Your task to perform on an android device: When is my next meeting? Image 0: 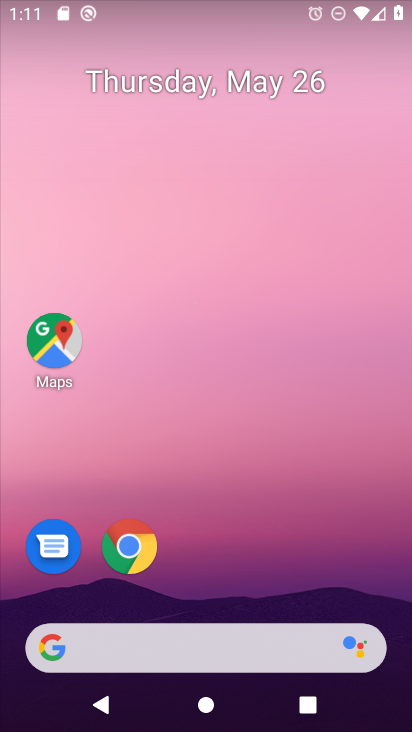
Step 0: drag from (244, 614) to (198, 79)
Your task to perform on an android device: When is my next meeting? Image 1: 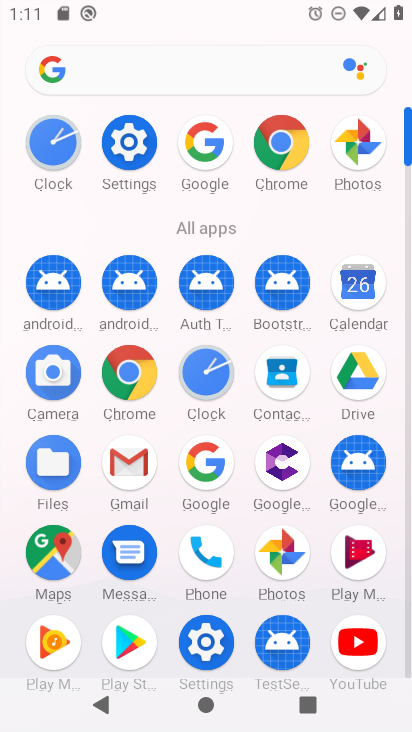
Step 1: click (331, 273)
Your task to perform on an android device: When is my next meeting? Image 2: 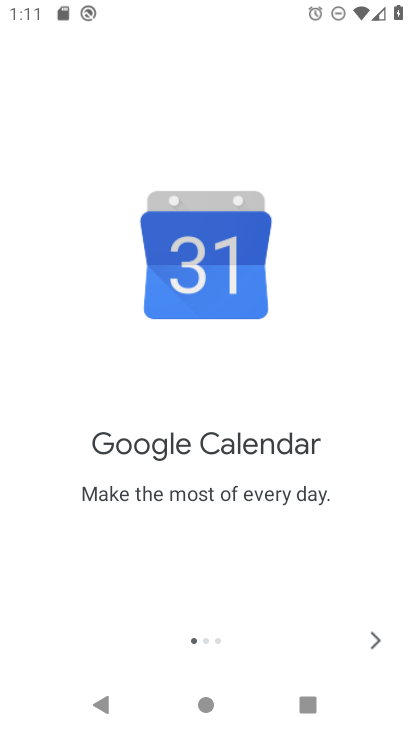
Step 2: click (378, 639)
Your task to perform on an android device: When is my next meeting? Image 3: 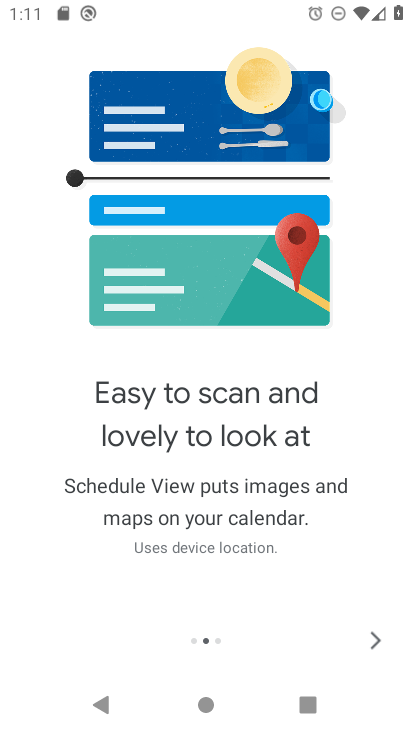
Step 3: click (378, 639)
Your task to perform on an android device: When is my next meeting? Image 4: 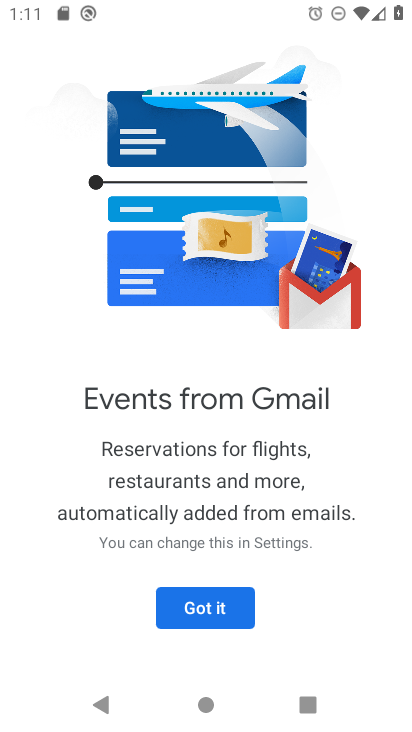
Step 4: click (185, 607)
Your task to perform on an android device: When is my next meeting? Image 5: 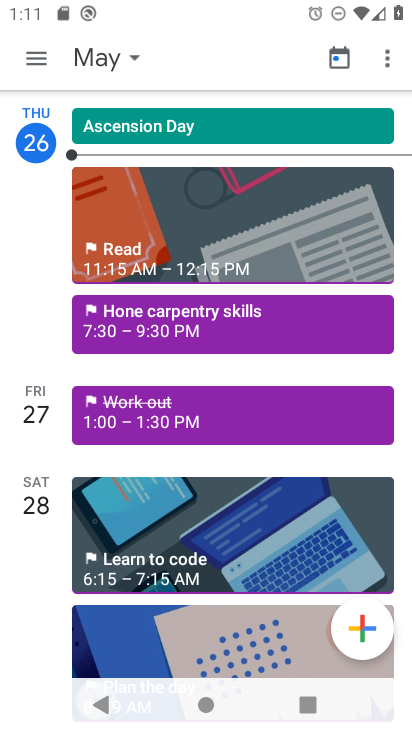
Step 5: click (102, 58)
Your task to perform on an android device: When is my next meeting? Image 6: 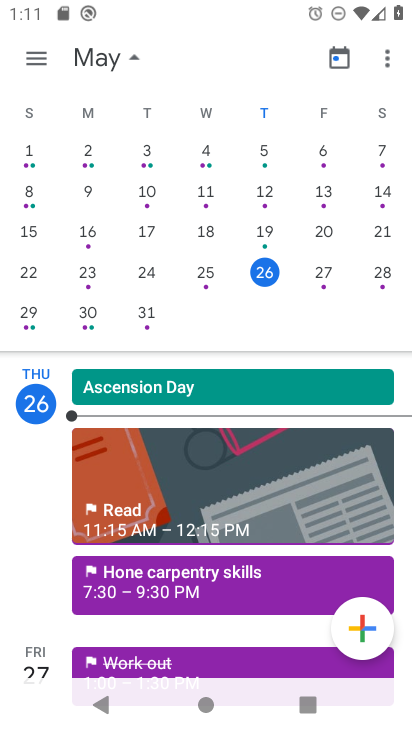
Step 6: click (102, 58)
Your task to perform on an android device: When is my next meeting? Image 7: 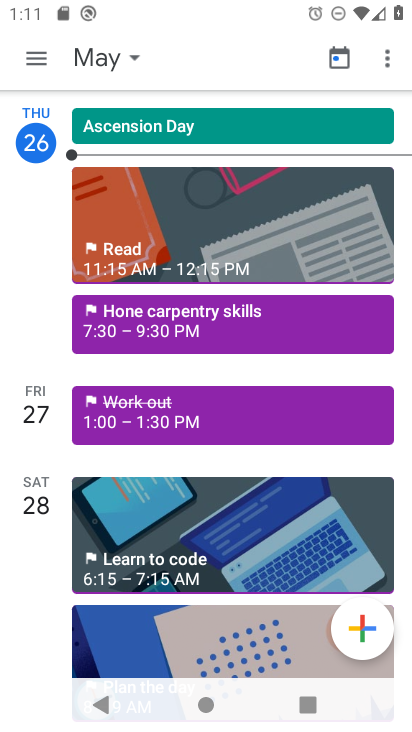
Step 7: click (102, 58)
Your task to perform on an android device: When is my next meeting? Image 8: 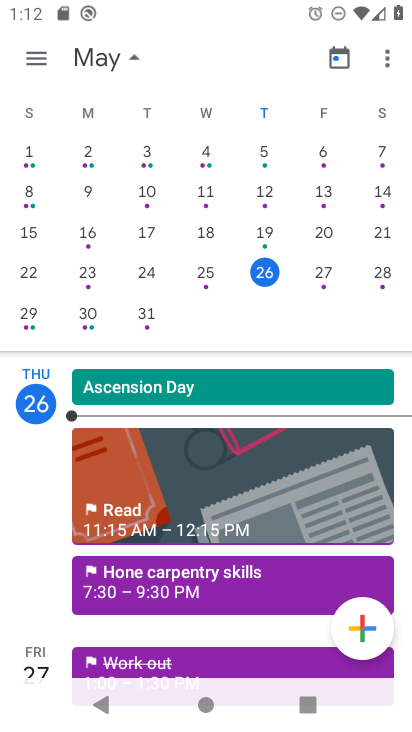
Step 8: click (233, 538)
Your task to perform on an android device: When is my next meeting? Image 9: 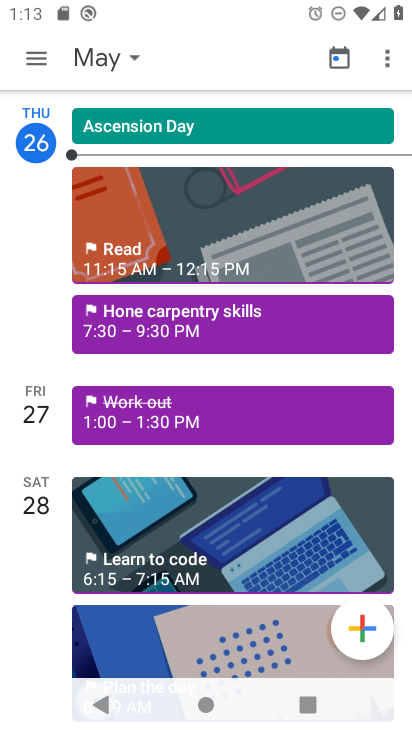
Step 9: task complete